Your task to perform on an android device: Show me the alarms in the clock app Image 0: 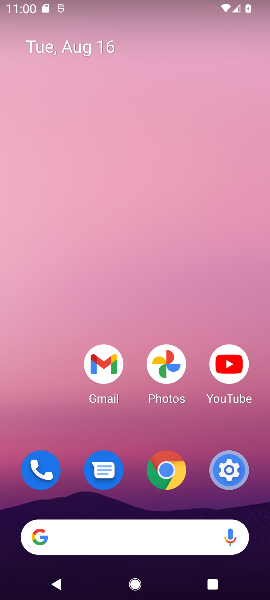
Step 0: drag from (42, 393) to (33, 4)
Your task to perform on an android device: Show me the alarms in the clock app Image 1: 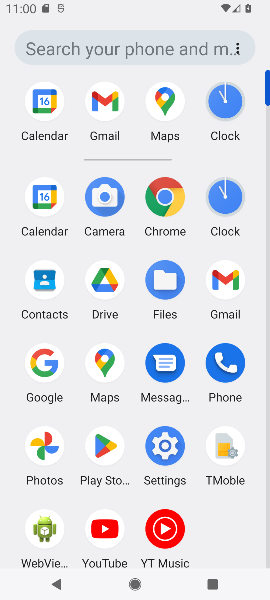
Step 1: click (224, 102)
Your task to perform on an android device: Show me the alarms in the clock app Image 2: 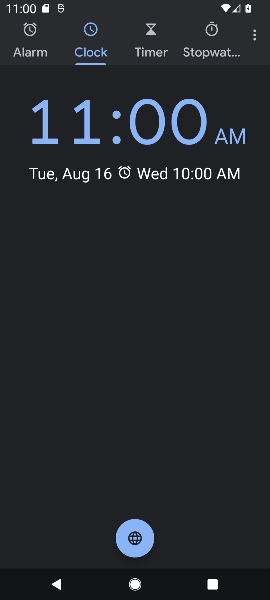
Step 2: click (30, 37)
Your task to perform on an android device: Show me the alarms in the clock app Image 3: 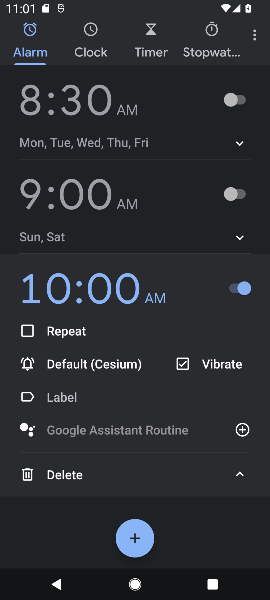
Step 3: task complete